Your task to perform on an android device: Search for sushi restaurants on Maps Image 0: 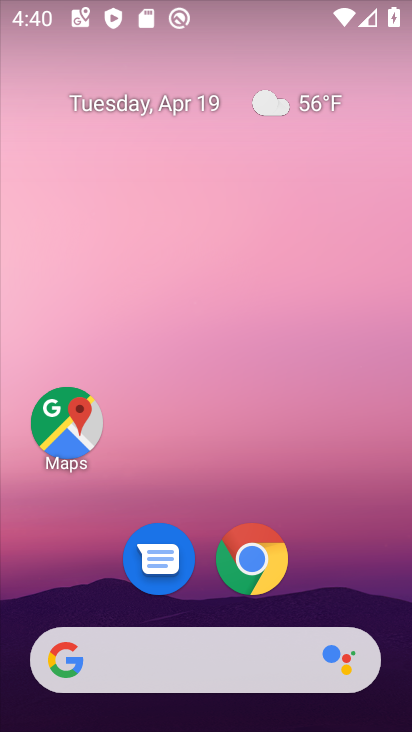
Step 0: click (57, 419)
Your task to perform on an android device: Search for sushi restaurants on Maps Image 1: 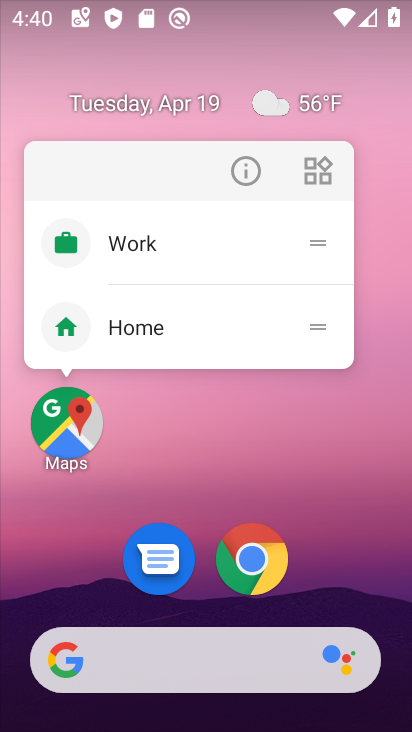
Step 1: click (57, 419)
Your task to perform on an android device: Search for sushi restaurants on Maps Image 2: 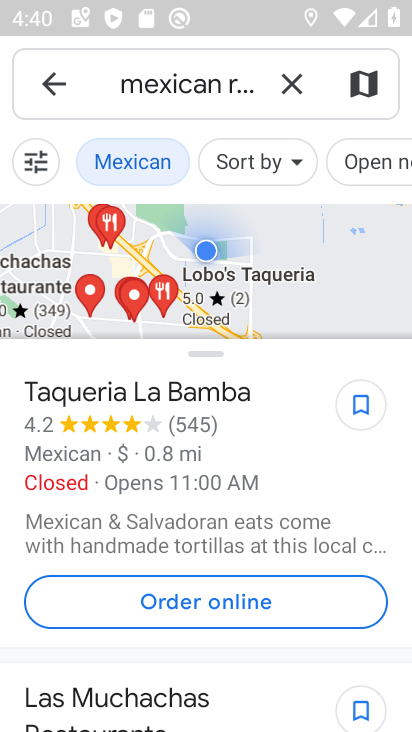
Step 2: click (291, 86)
Your task to perform on an android device: Search for sushi restaurants on Maps Image 3: 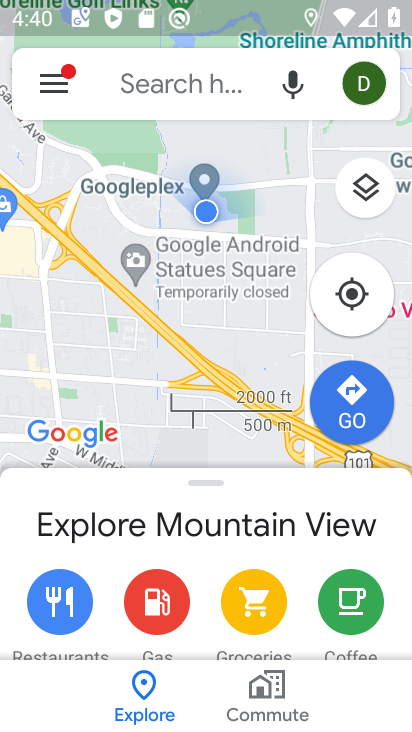
Step 3: click (144, 103)
Your task to perform on an android device: Search for sushi restaurants on Maps Image 4: 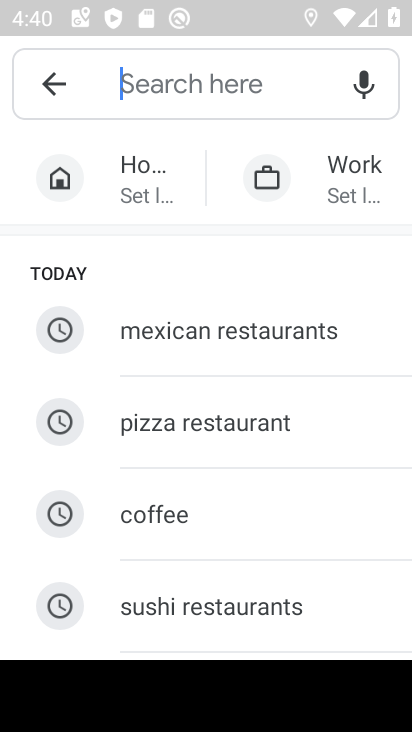
Step 4: type "sushi restaurants"
Your task to perform on an android device: Search for sushi restaurants on Maps Image 5: 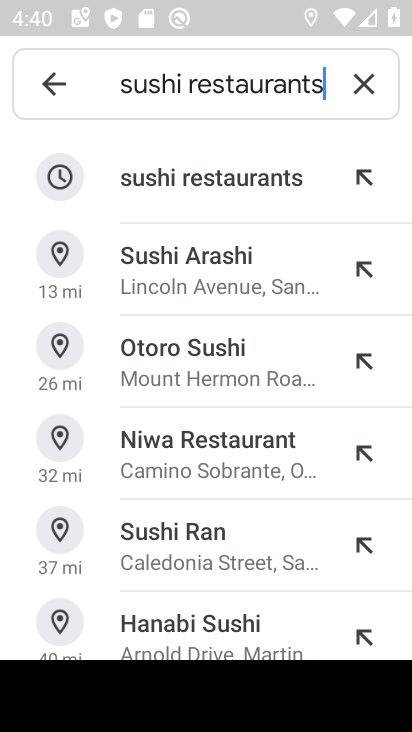
Step 5: click (195, 166)
Your task to perform on an android device: Search for sushi restaurants on Maps Image 6: 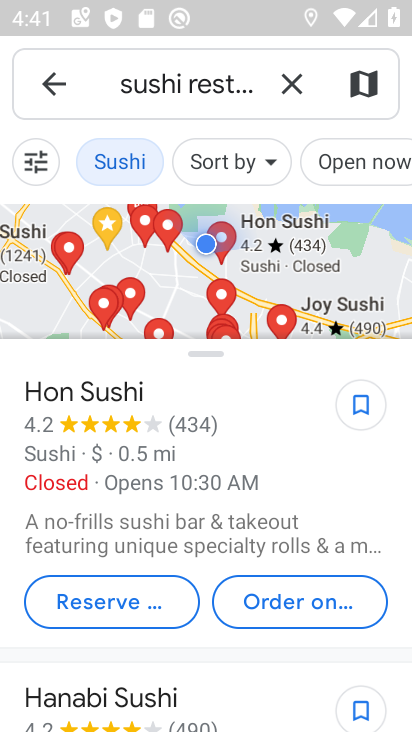
Step 6: task complete